Your task to perform on an android device: Check the weather Image 0: 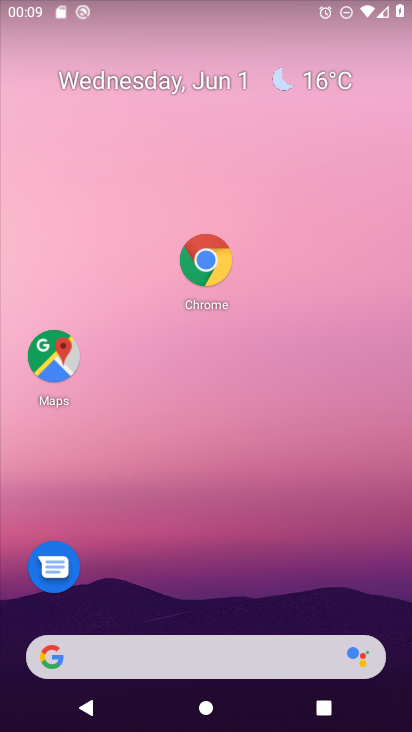
Step 0: drag from (295, 534) to (336, 216)
Your task to perform on an android device: Check the weather Image 1: 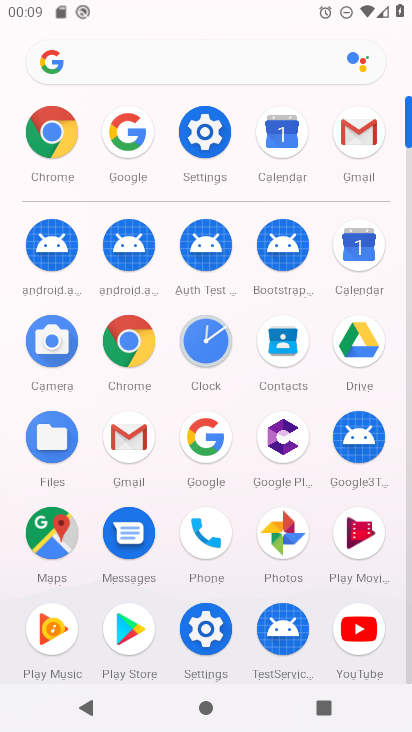
Step 1: click (193, 448)
Your task to perform on an android device: Check the weather Image 2: 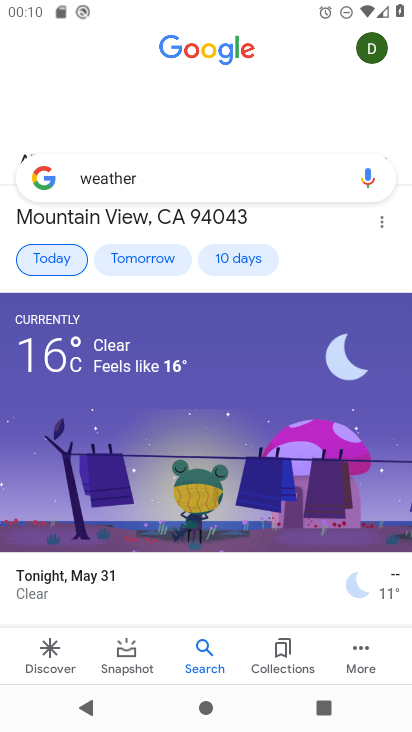
Step 2: task complete